Your task to perform on an android device: Open Google Chrome and click the shortcut for Amazon.com Image 0: 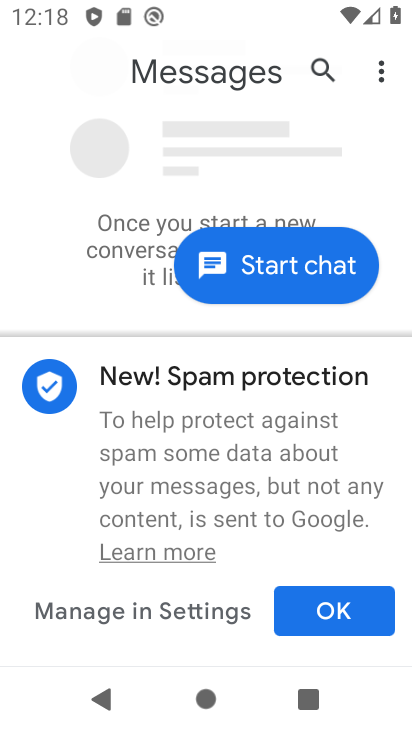
Step 0: click (207, 580)
Your task to perform on an android device: Open Google Chrome and click the shortcut for Amazon.com Image 1: 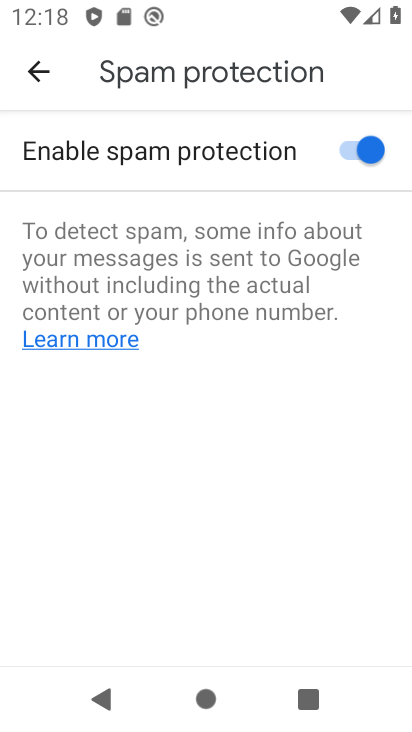
Step 1: press home button
Your task to perform on an android device: Open Google Chrome and click the shortcut for Amazon.com Image 2: 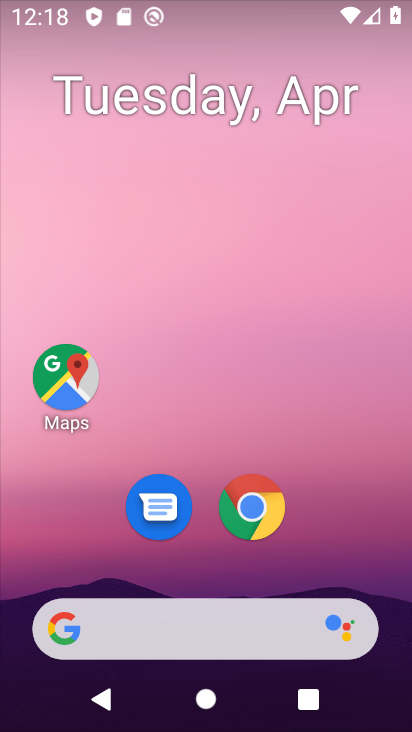
Step 2: drag from (193, 570) to (199, 155)
Your task to perform on an android device: Open Google Chrome and click the shortcut for Amazon.com Image 3: 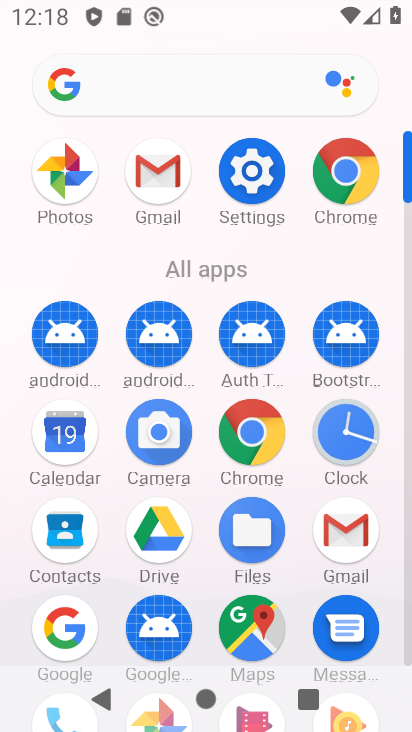
Step 3: click (257, 443)
Your task to perform on an android device: Open Google Chrome and click the shortcut for Amazon.com Image 4: 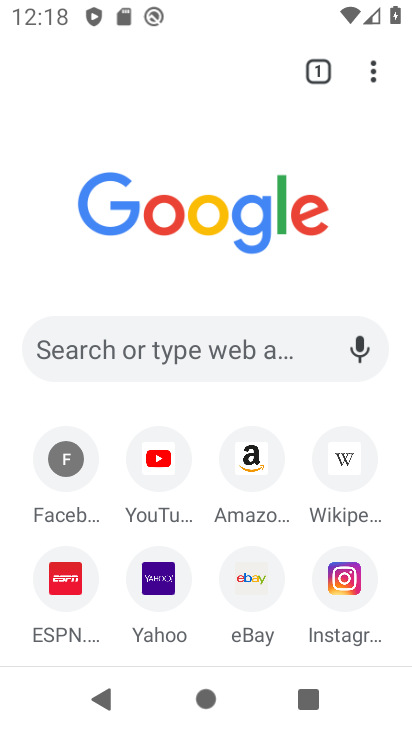
Step 4: click (253, 448)
Your task to perform on an android device: Open Google Chrome and click the shortcut for Amazon.com Image 5: 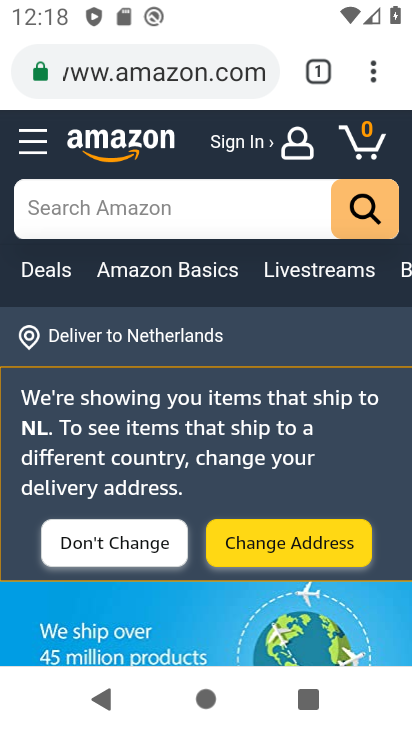
Step 5: task complete